Your task to perform on an android device: Go to notification settings Image 0: 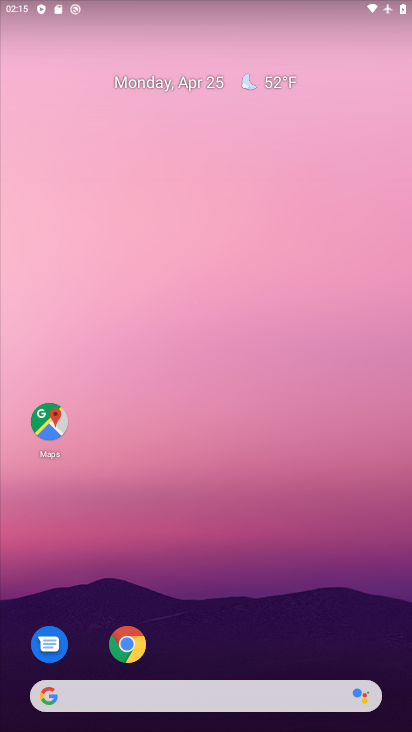
Step 0: drag from (265, 640) to (179, 67)
Your task to perform on an android device: Go to notification settings Image 1: 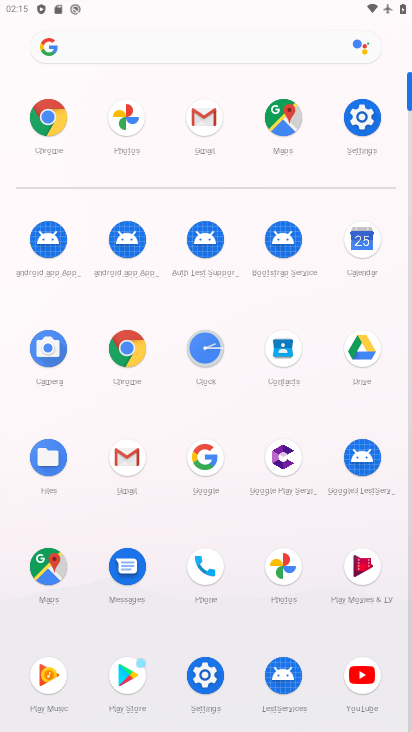
Step 1: click (354, 126)
Your task to perform on an android device: Go to notification settings Image 2: 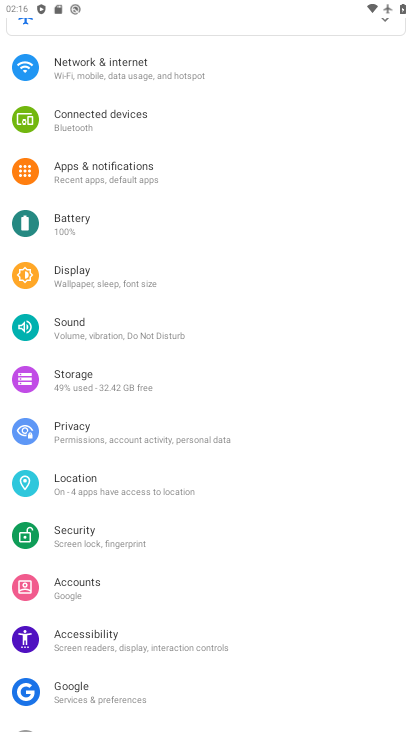
Step 2: drag from (227, 557) to (222, 344)
Your task to perform on an android device: Go to notification settings Image 3: 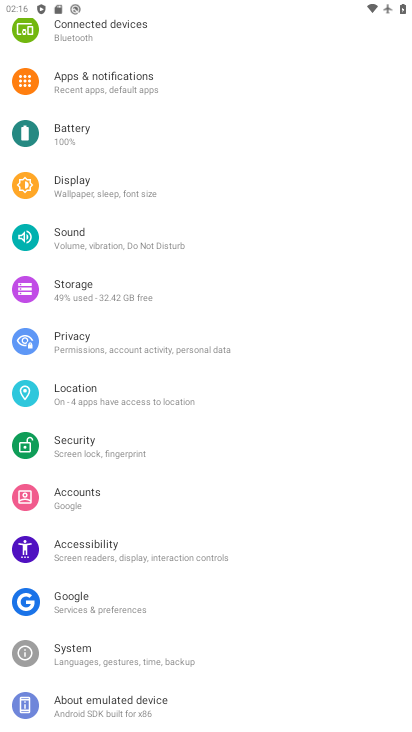
Step 3: click (177, 77)
Your task to perform on an android device: Go to notification settings Image 4: 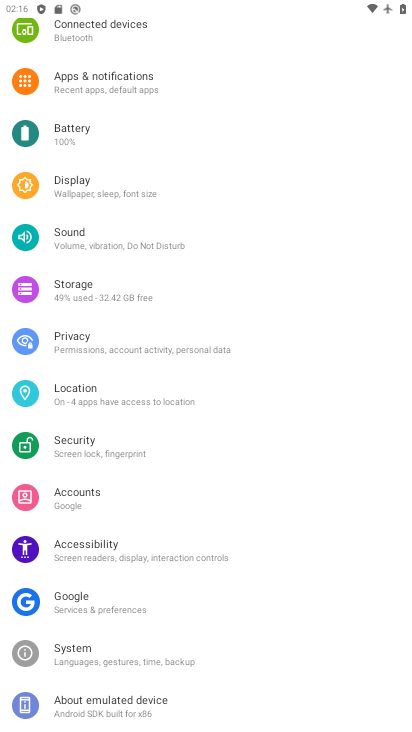
Step 4: task complete